Your task to perform on an android device: Open battery settings Image 0: 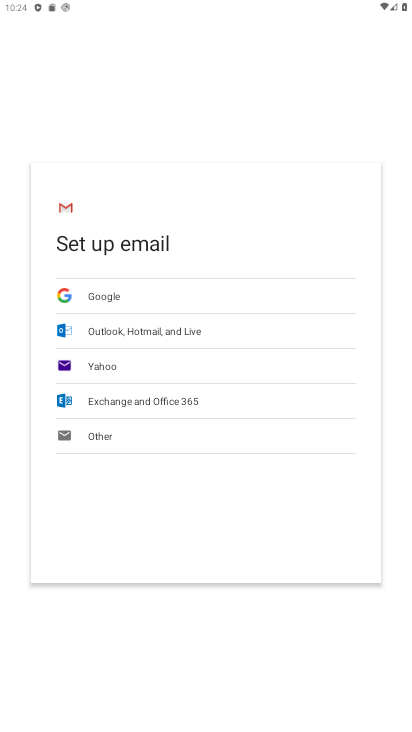
Step 0: press home button
Your task to perform on an android device: Open battery settings Image 1: 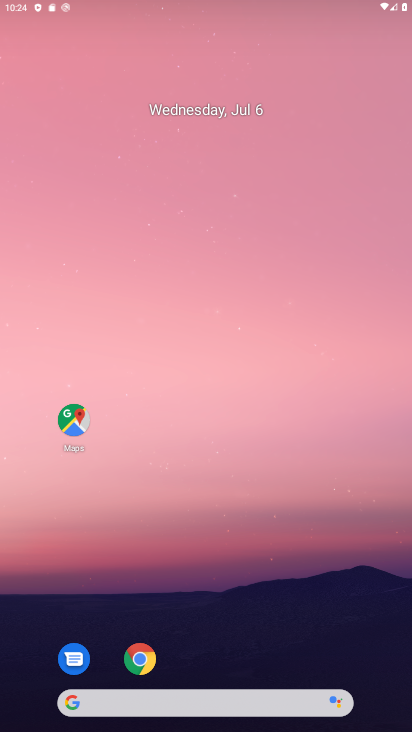
Step 1: drag from (236, 652) to (304, 179)
Your task to perform on an android device: Open battery settings Image 2: 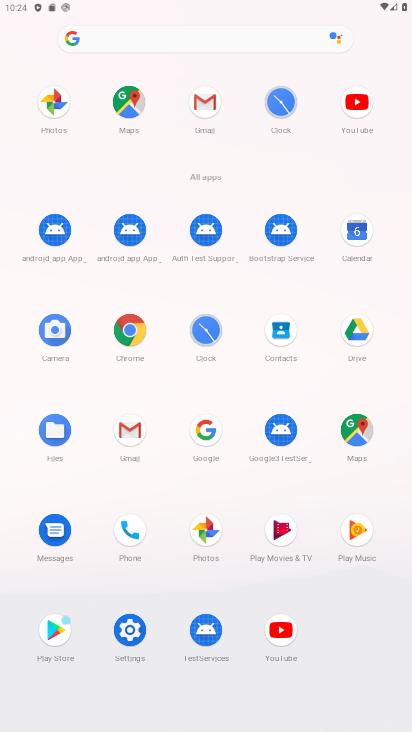
Step 2: click (130, 629)
Your task to perform on an android device: Open battery settings Image 3: 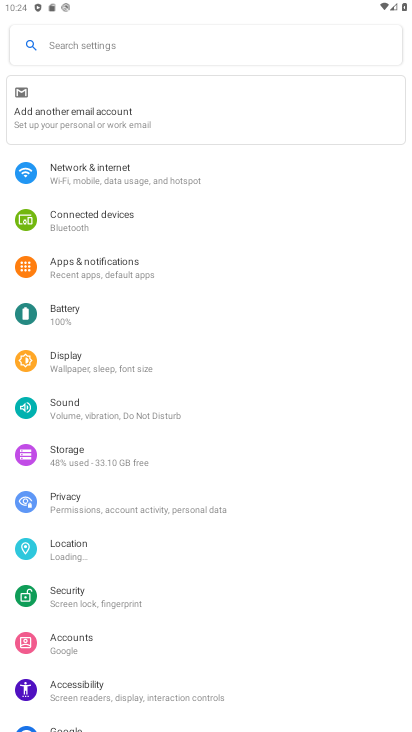
Step 3: click (81, 315)
Your task to perform on an android device: Open battery settings Image 4: 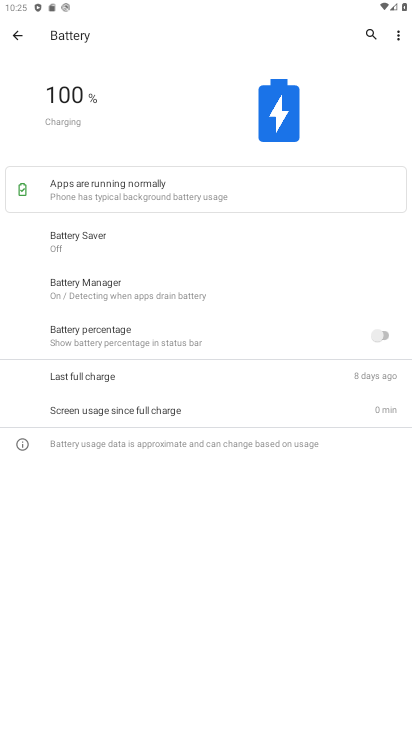
Step 4: task complete